Your task to perform on an android device: change the clock display to show seconds Image 0: 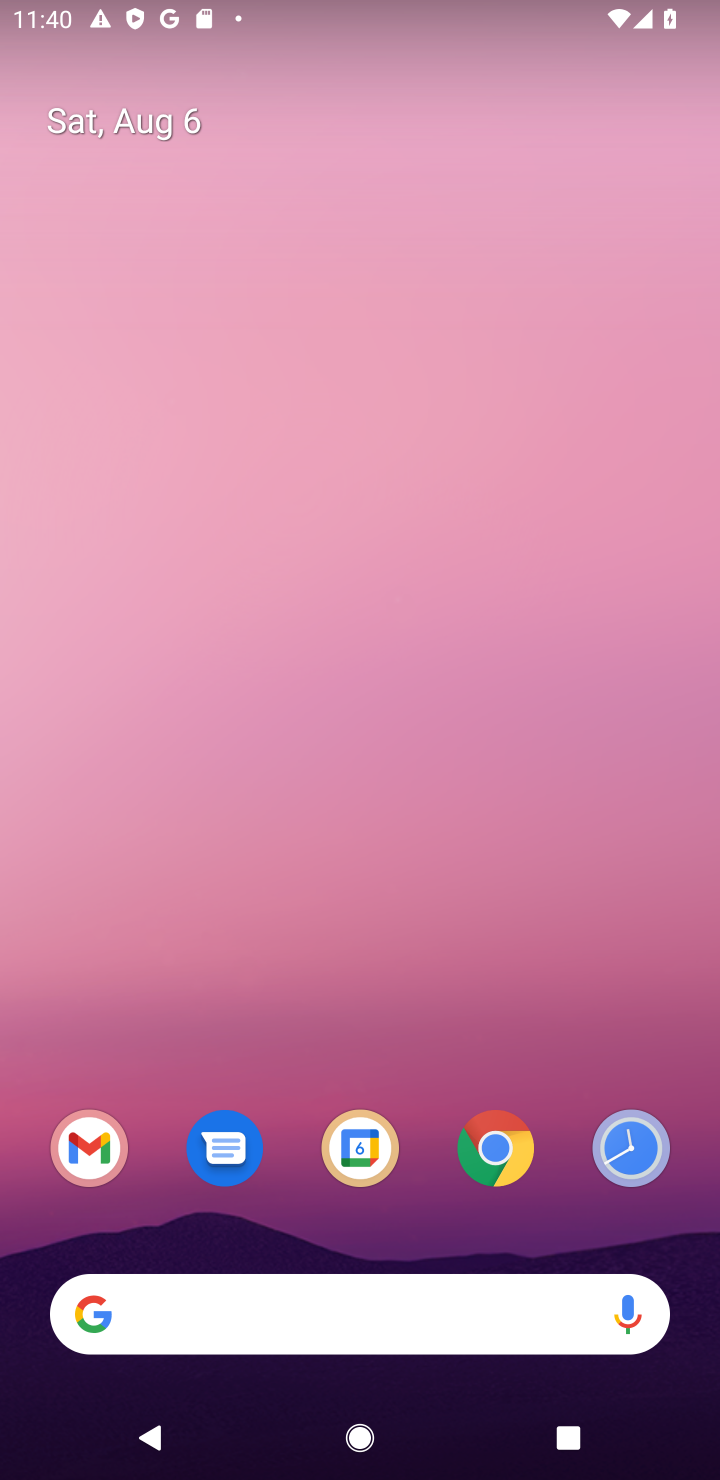
Step 0: click (640, 1145)
Your task to perform on an android device: change the clock display to show seconds Image 1: 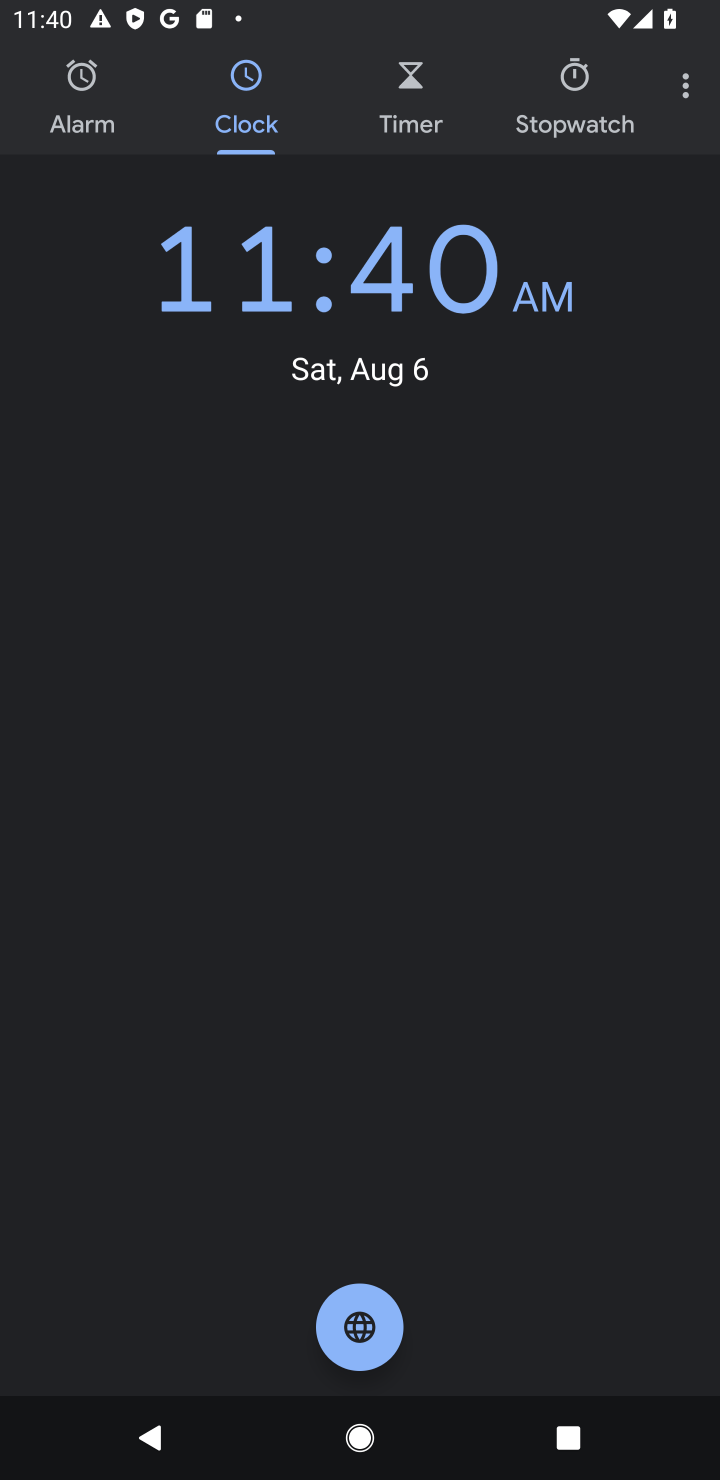
Step 1: click (682, 89)
Your task to perform on an android device: change the clock display to show seconds Image 2: 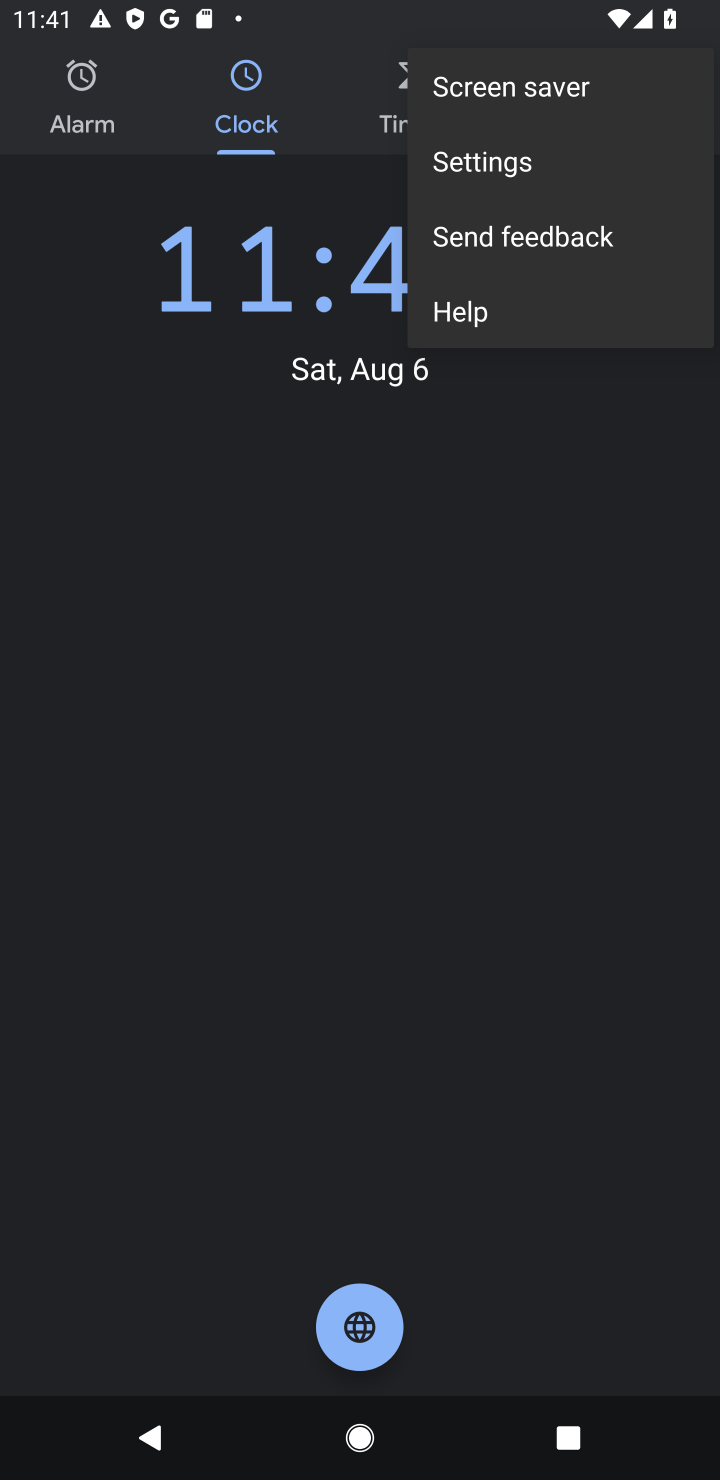
Step 2: click (476, 177)
Your task to perform on an android device: change the clock display to show seconds Image 3: 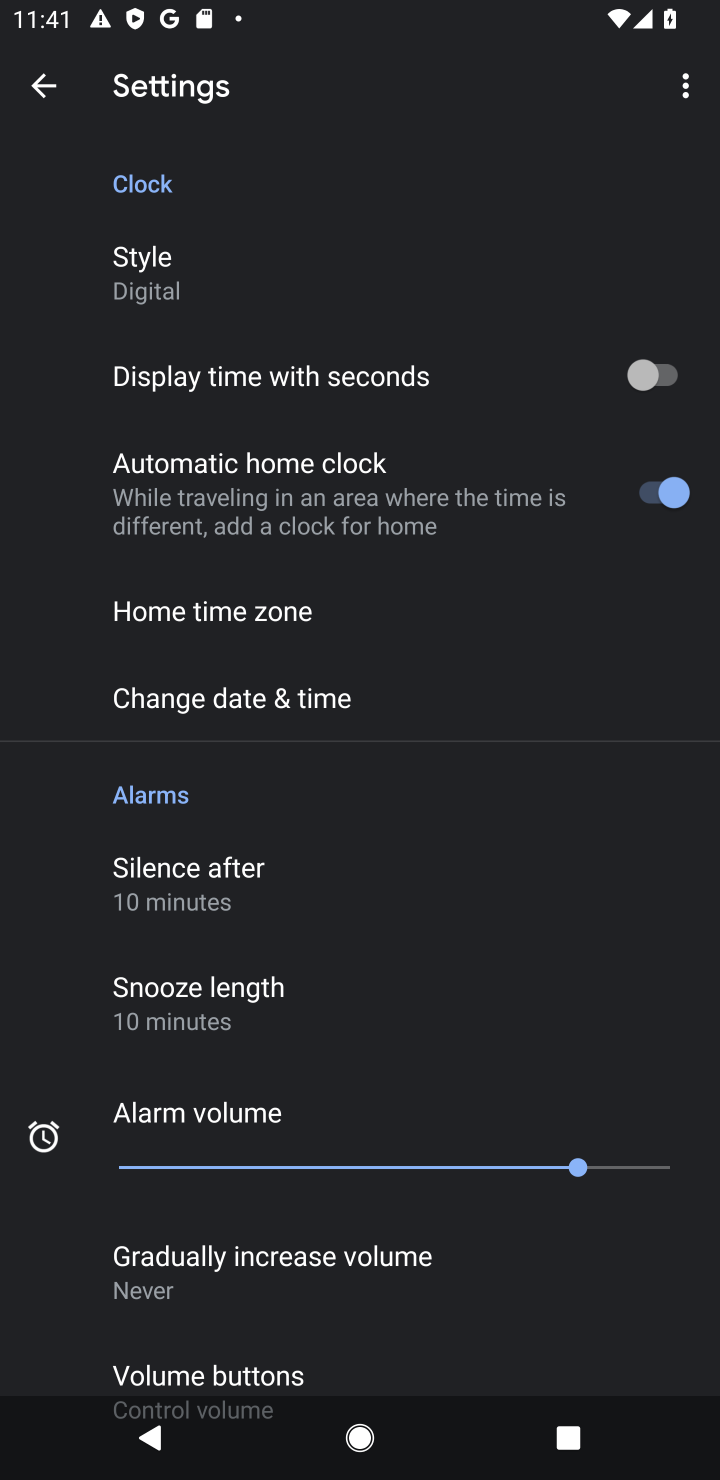
Step 3: click (152, 255)
Your task to perform on an android device: change the clock display to show seconds Image 4: 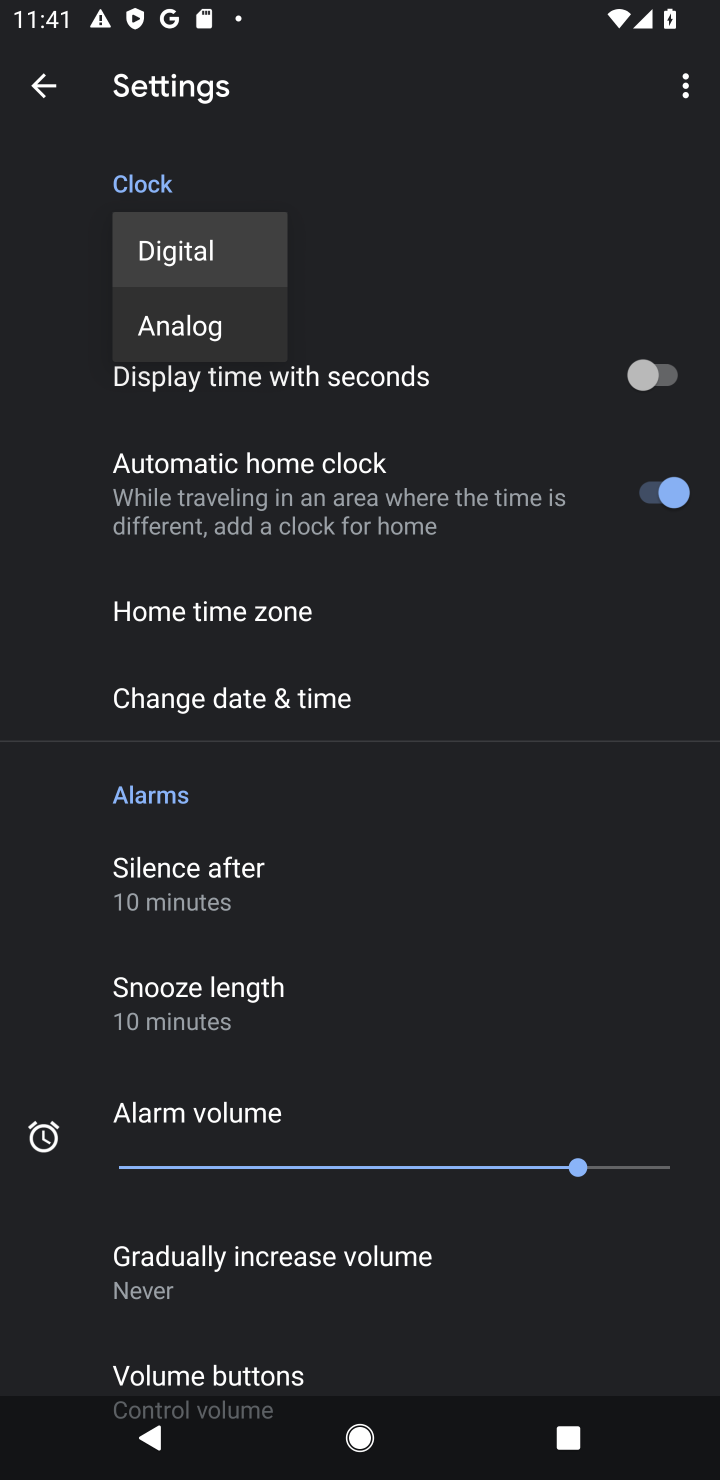
Step 4: click (643, 369)
Your task to perform on an android device: change the clock display to show seconds Image 5: 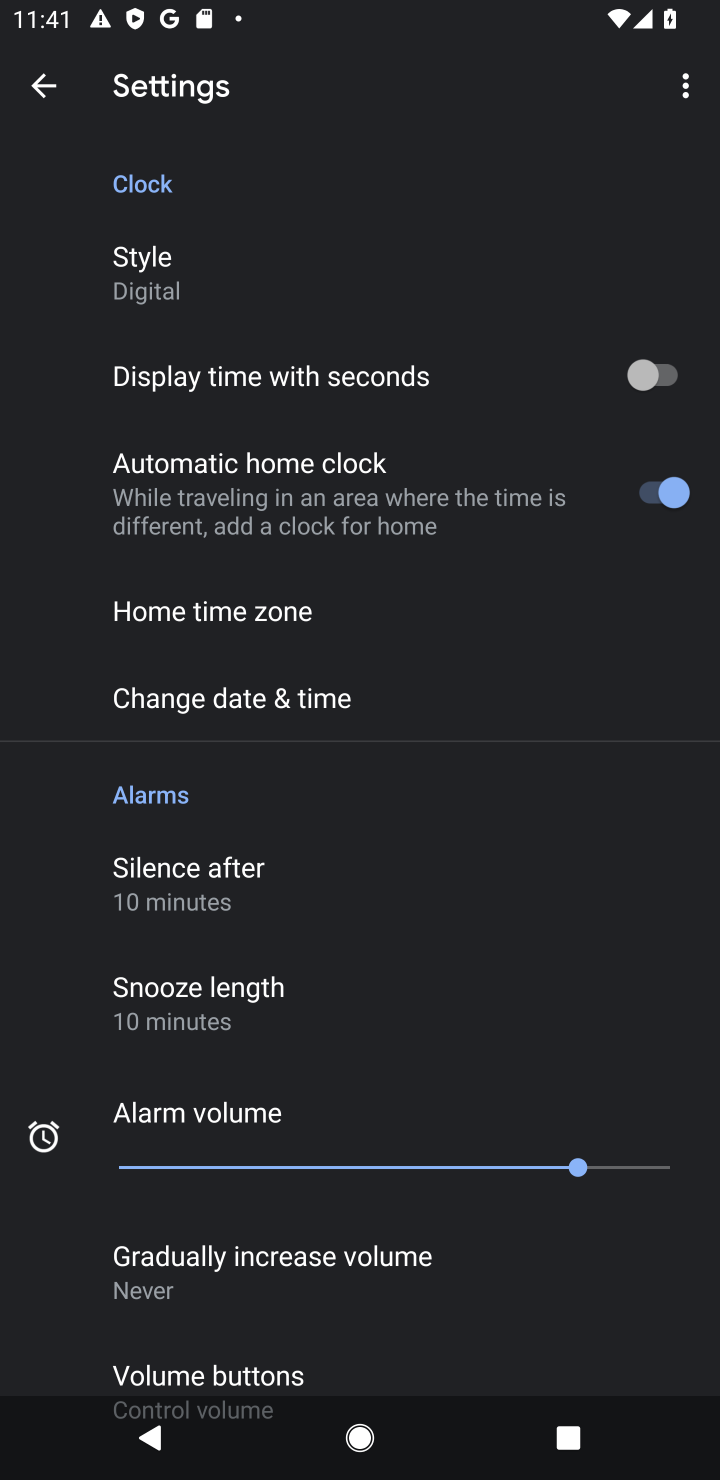
Step 5: click (643, 369)
Your task to perform on an android device: change the clock display to show seconds Image 6: 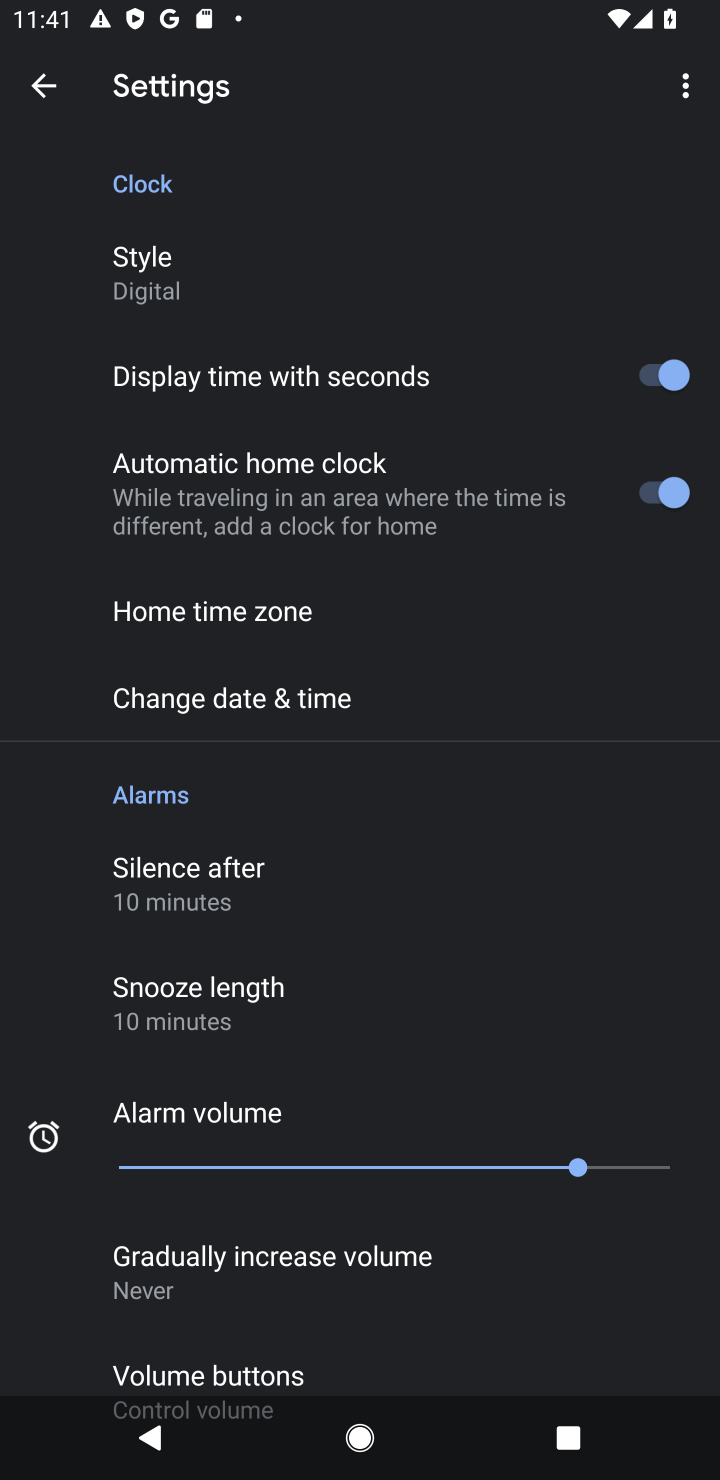
Step 6: task complete